Your task to perform on an android device: Open the Play Movies app and select the watchlist tab. Image 0: 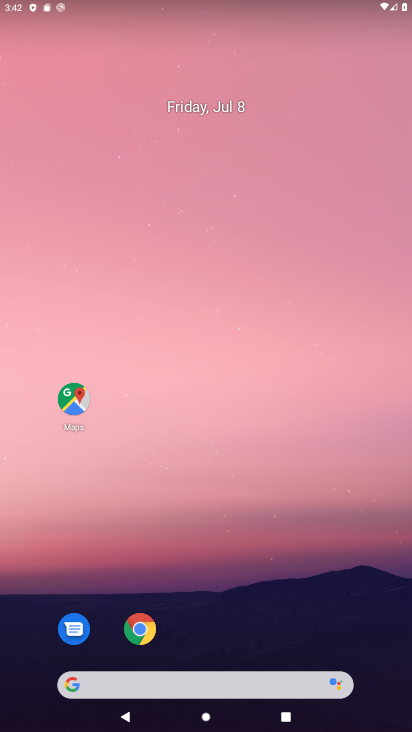
Step 0: drag from (224, 653) to (206, 80)
Your task to perform on an android device: Open the Play Movies app and select the watchlist tab. Image 1: 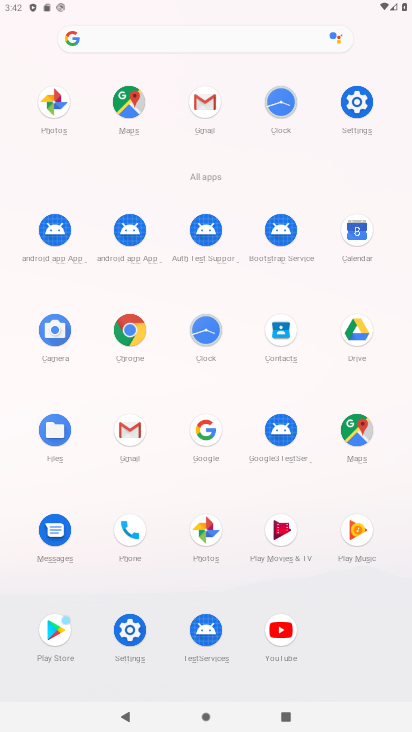
Step 1: click (301, 530)
Your task to perform on an android device: Open the Play Movies app and select the watchlist tab. Image 2: 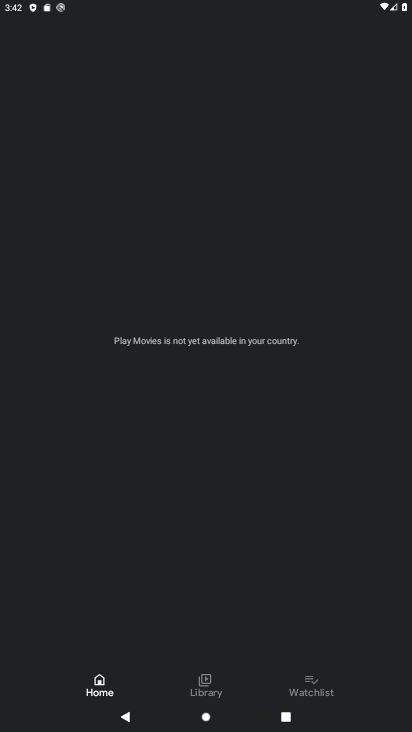
Step 2: click (327, 673)
Your task to perform on an android device: Open the Play Movies app and select the watchlist tab. Image 3: 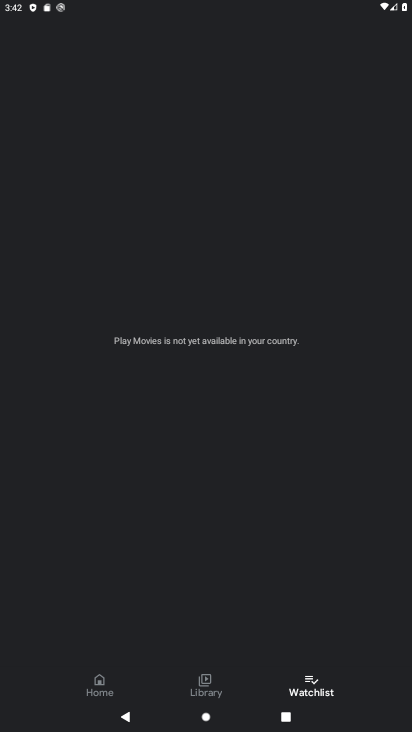
Step 3: task complete